Your task to perform on an android device: Open calendar and show me the fourth week of next month Image 0: 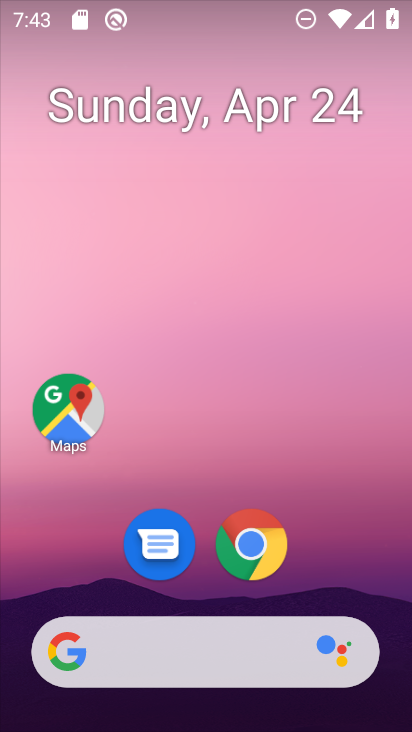
Step 0: drag from (242, 428) to (334, 61)
Your task to perform on an android device: Open calendar and show me the fourth week of next month Image 1: 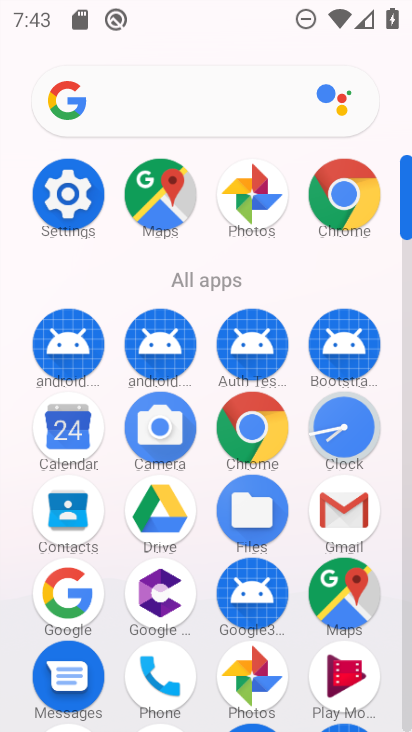
Step 1: click (69, 429)
Your task to perform on an android device: Open calendar and show me the fourth week of next month Image 2: 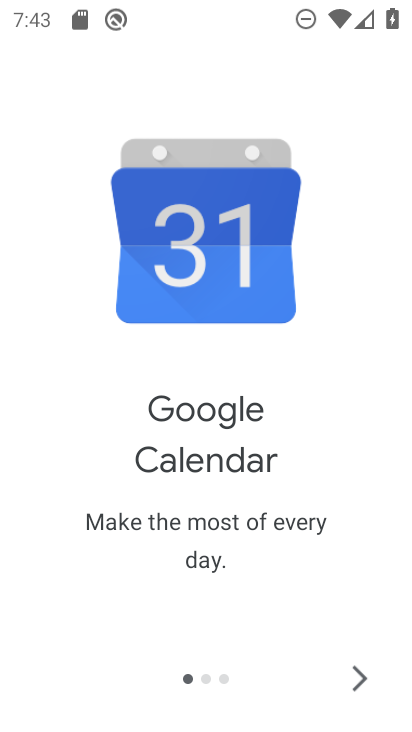
Step 2: click (355, 673)
Your task to perform on an android device: Open calendar and show me the fourth week of next month Image 3: 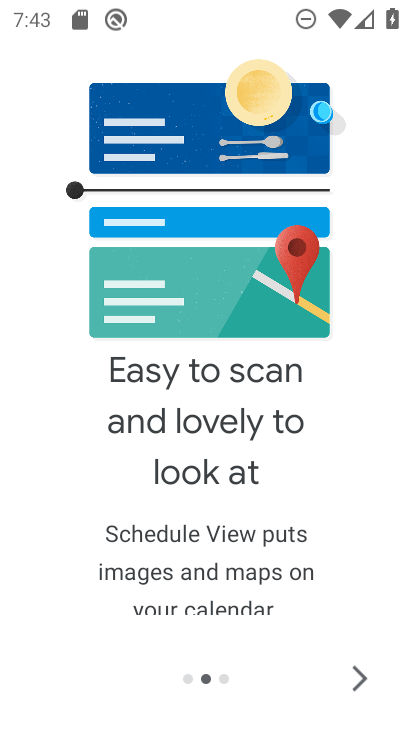
Step 3: click (354, 677)
Your task to perform on an android device: Open calendar and show me the fourth week of next month Image 4: 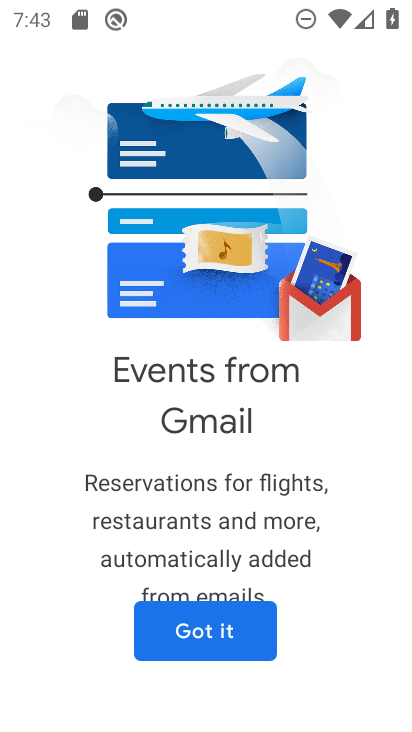
Step 4: click (195, 623)
Your task to perform on an android device: Open calendar and show me the fourth week of next month Image 5: 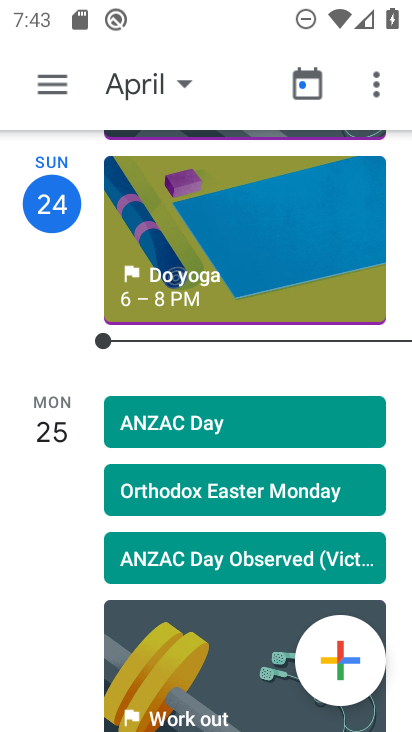
Step 5: click (137, 84)
Your task to perform on an android device: Open calendar and show me the fourth week of next month Image 6: 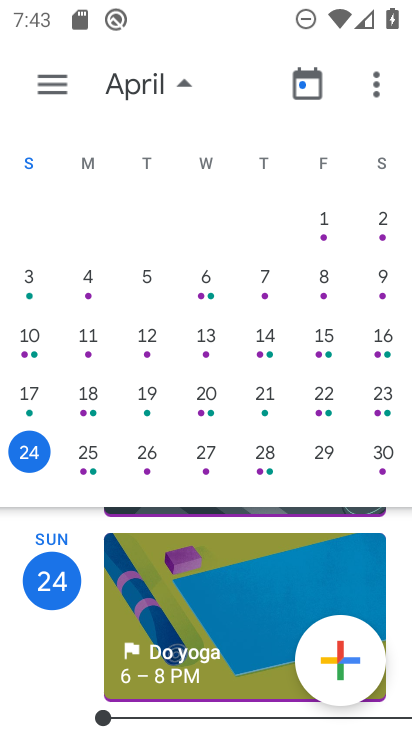
Step 6: drag from (363, 412) to (8, 350)
Your task to perform on an android device: Open calendar and show me the fourth week of next month Image 7: 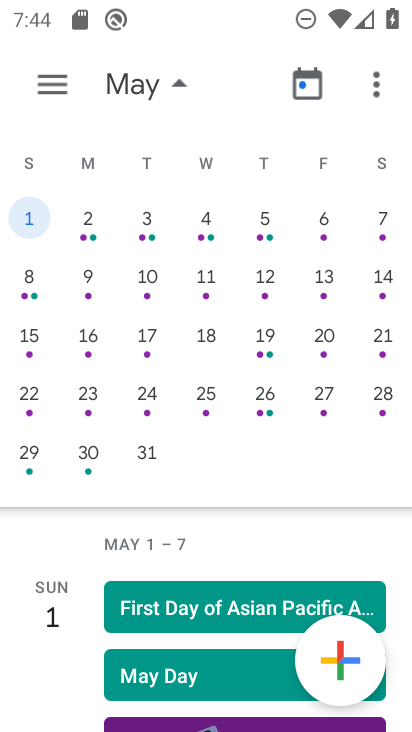
Step 7: click (29, 399)
Your task to perform on an android device: Open calendar and show me the fourth week of next month Image 8: 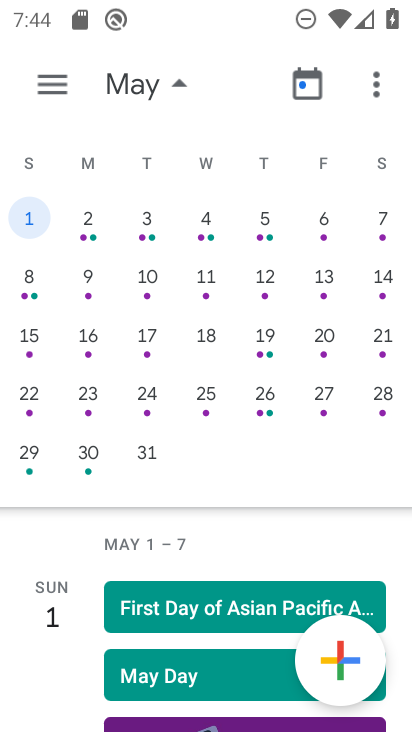
Step 8: click (29, 394)
Your task to perform on an android device: Open calendar and show me the fourth week of next month Image 9: 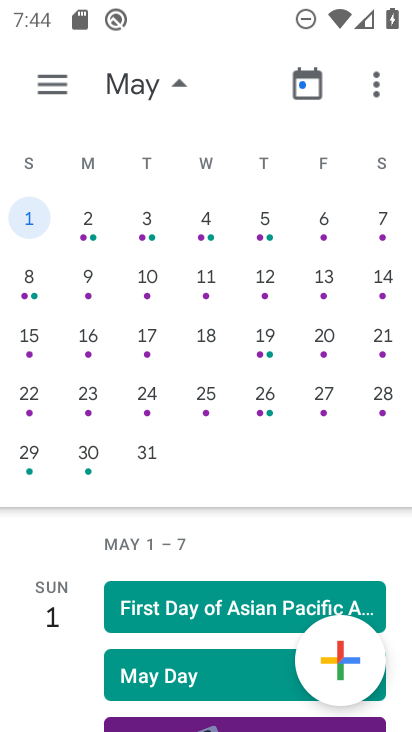
Step 9: click (36, 398)
Your task to perform on an android device: Open calendar and show me the fourth week of next month Image 10: 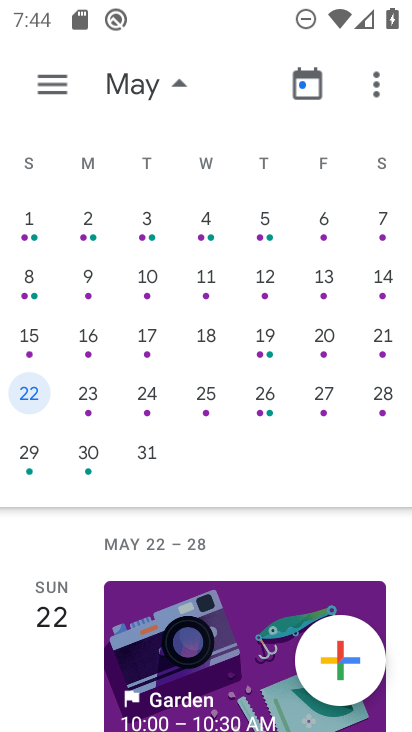
Step 10: click (58, 84)
Your task to perform on an android device: Open calendar and show me the fourth week of next month Image 11: 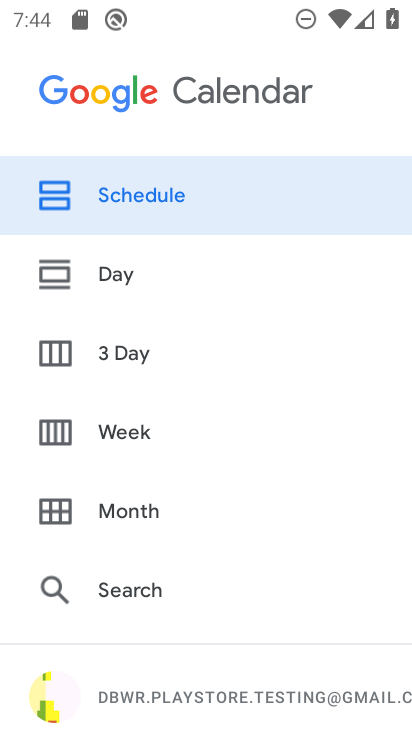
Step 11: click (120, 431)
Your task to perform on an android device: Open calendar and show me the fourth week of next month Image 12: 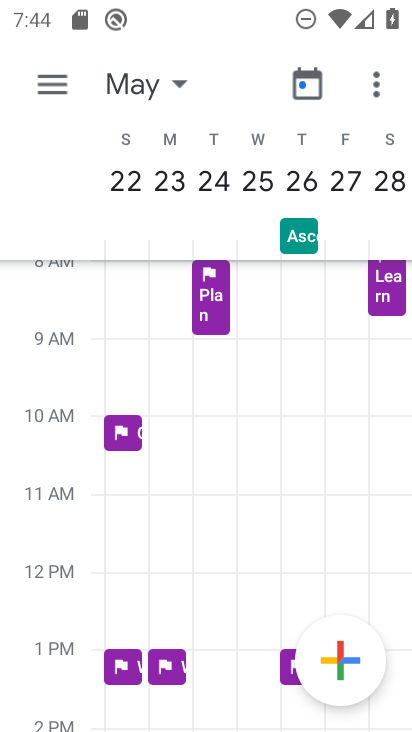
Step 12: task complete